Your task to perform on an android device: change the upload size in google photos Image 0: 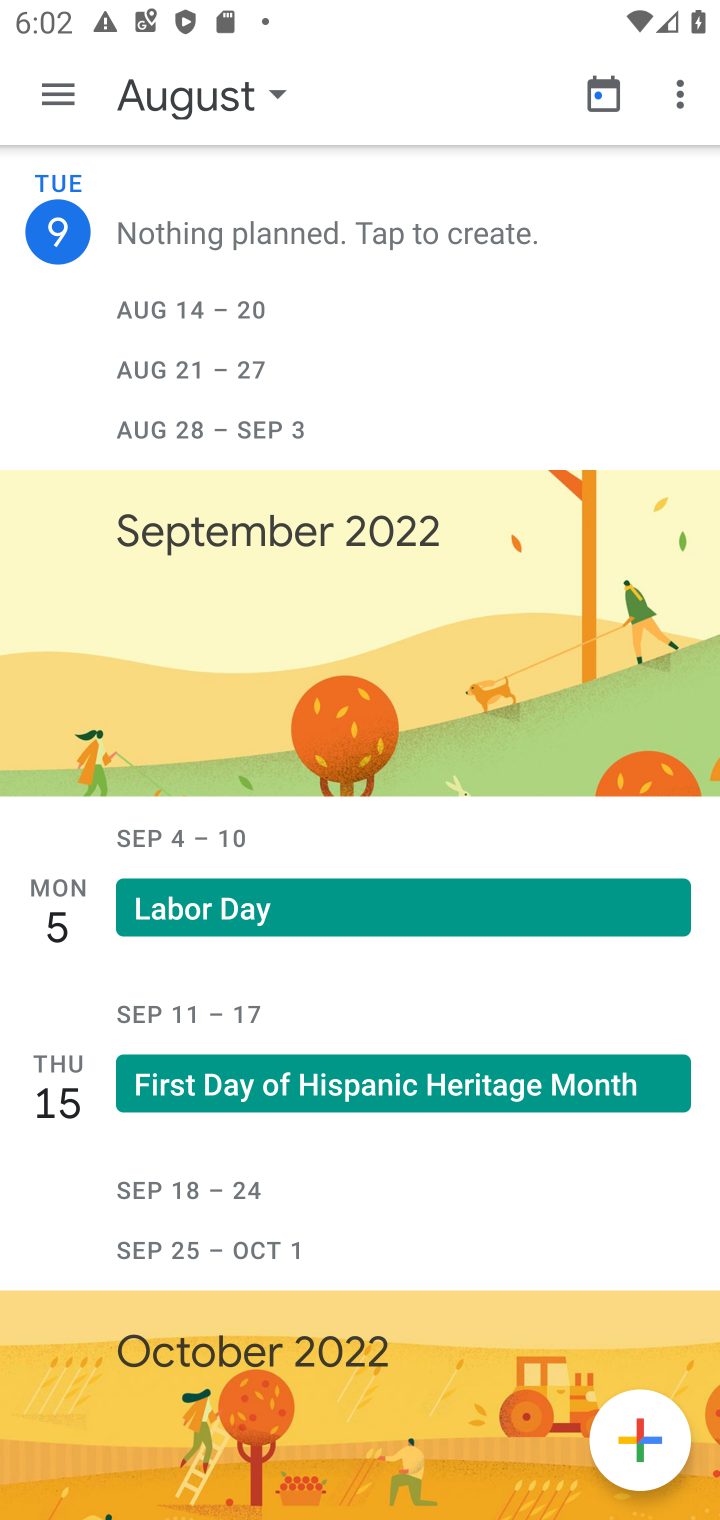
Step 0: press home button
Your task to perform on an android device: change the upload size in google photos Image 1: 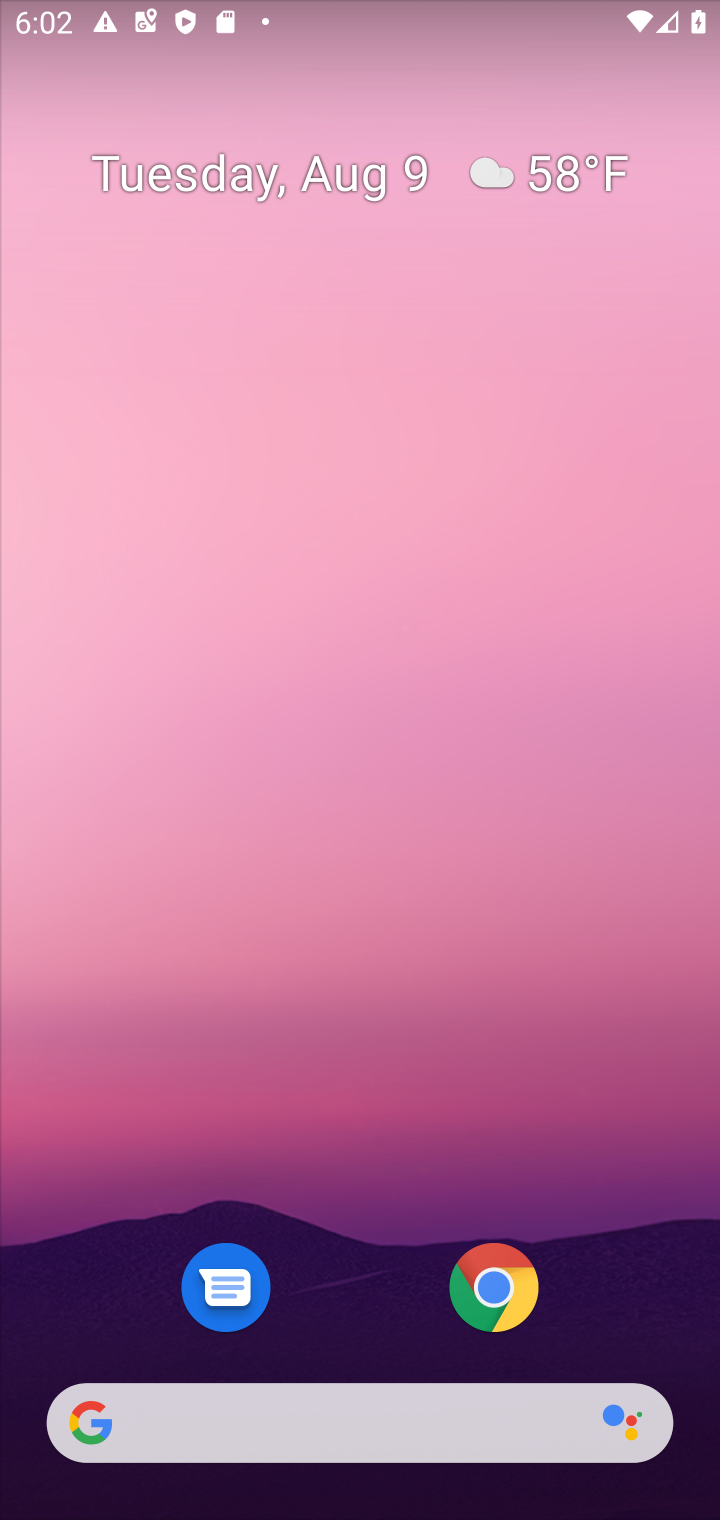
Step 1: drag from (340, 1257) to (301, 356)
Your task to perform on an android device: change the upload size in google photos Image 2: 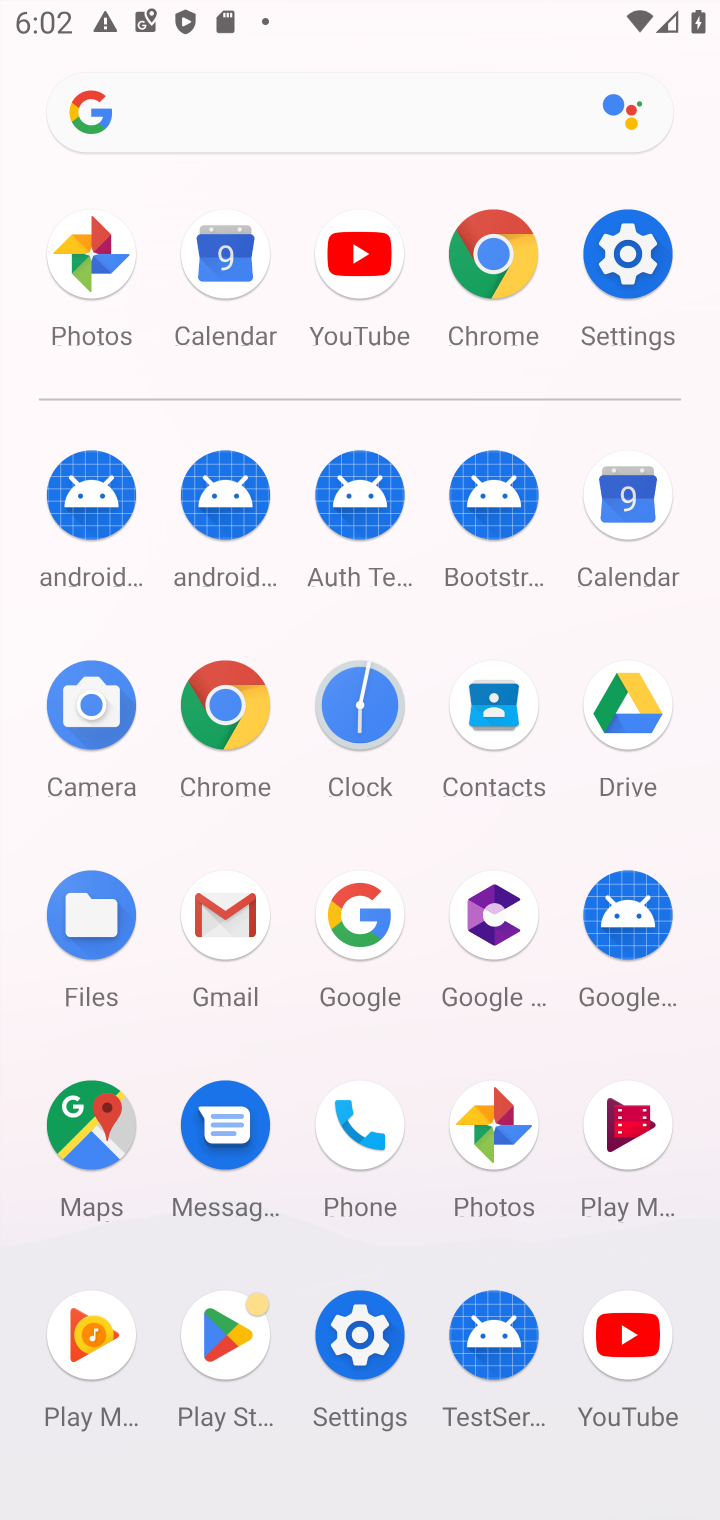
Step 2: click (484, 1135)
Your task to perform on an android device: change the upload size in google photos Image 3: 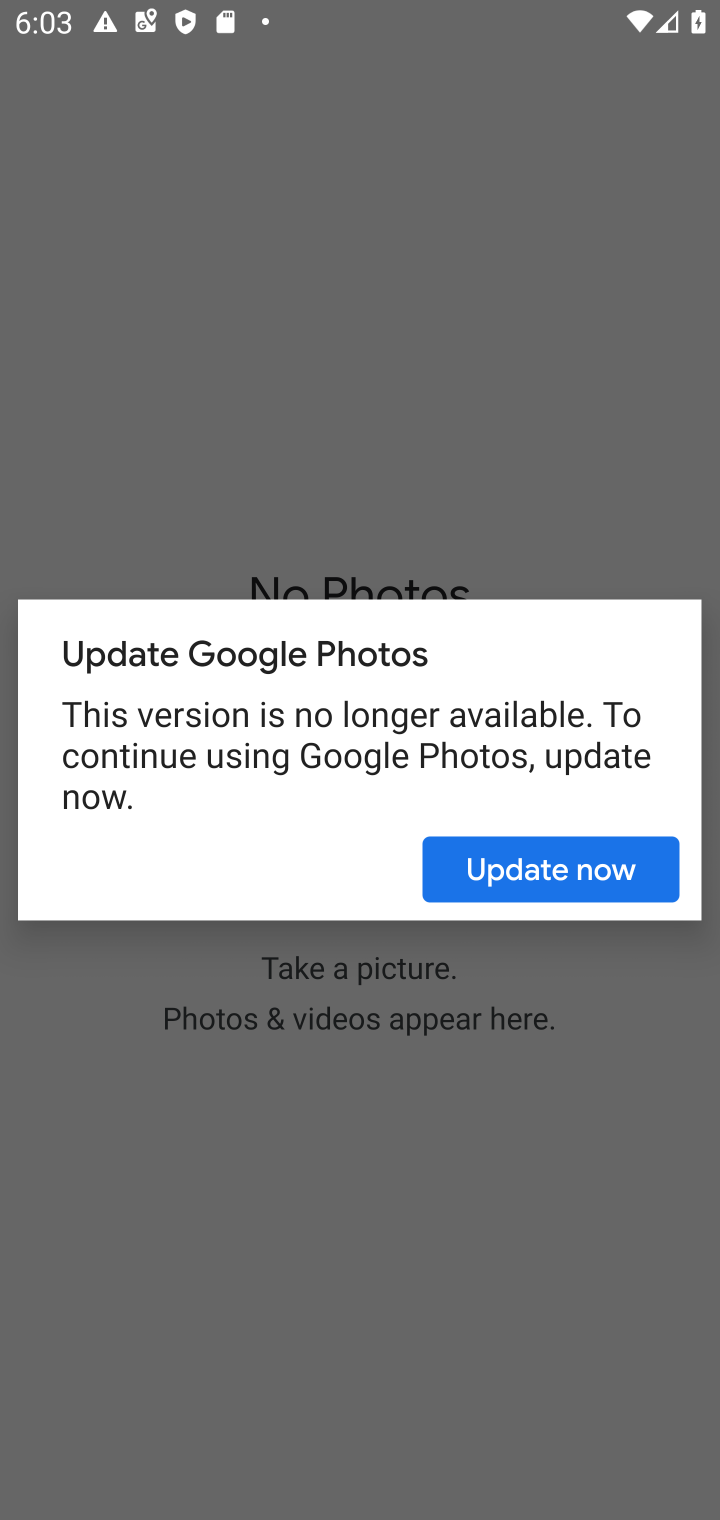
Step 3: task complete